Your task to perform on an android device: open app "Google Play Games" Image 0: 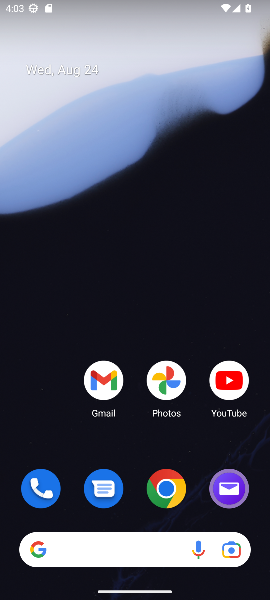
Step 0: drag from (139, 522) to (132, 4)
Your task to perform on an android device: open app "Google Play Games" Image 1: 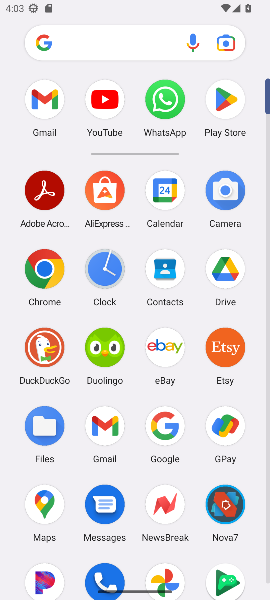
Step 1: click (239, 111)
Your task to perform on an android device: open app "Google Play Games" Image 2: 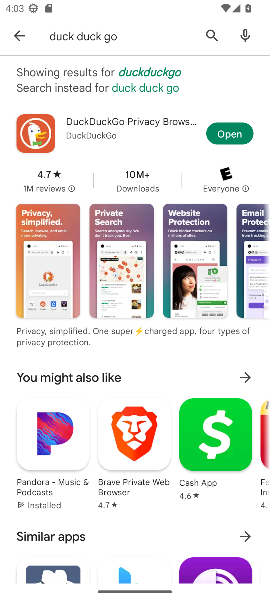
Step 2: click (211, 36)
Your task to perform on an android device: open app "Google Play Games" Image 3: 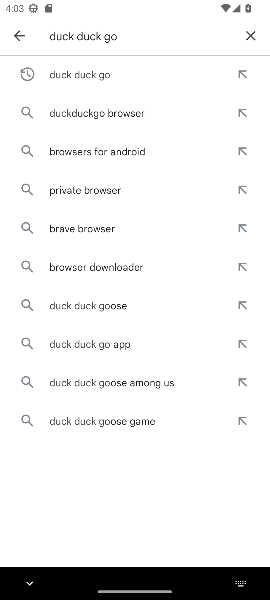
Step 3: click (248, 38)
Your task to perform on an android device: open app "Google Play Games" Image 4: 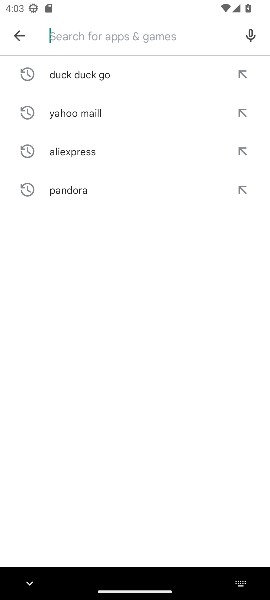
Step 4: type "google play"
Your task to perform on an android device: open app "Google Play Games" Image 5: 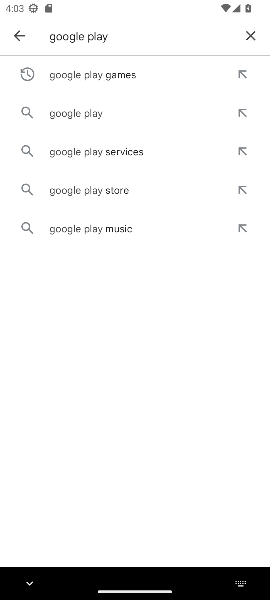
Step 5: click (156, 78)
Your task to perform on an android device: open app "Google Play Games" Image 6: 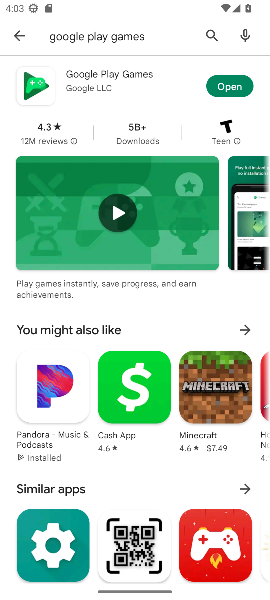
Step 6: click (236, 78)
Your task to perform on an android device: open app "Google Play Games" Image 7: 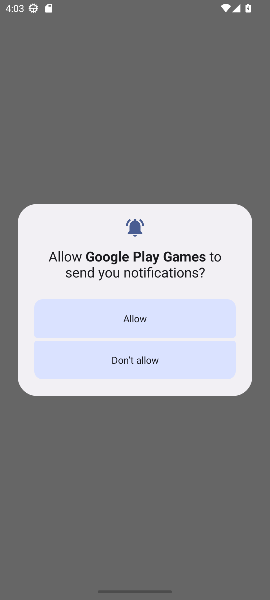
Step 7: task complete